Your task to perform on an android device: Open the stopwatch Image 0: 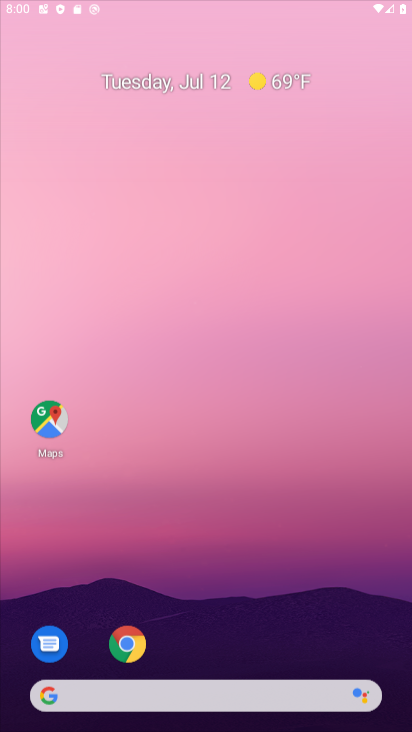
Step 0: press home button
Your task to perform on an android device: Open the stopwatch Image 1: 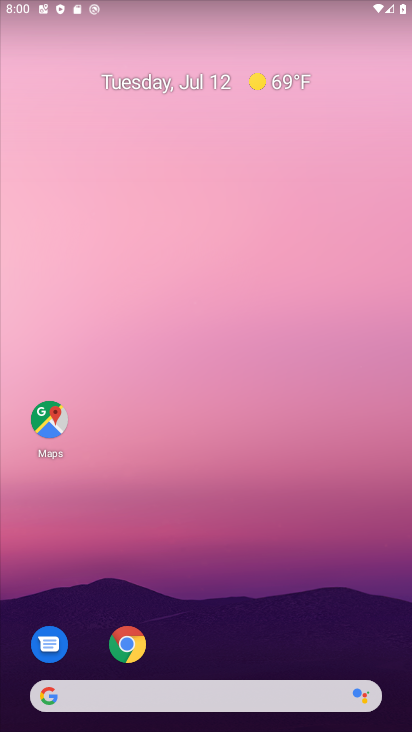
Step 1: drag from (207, 659) to (236, 25)
Your task to perform on an android device: Open the stopwatch Image 2: 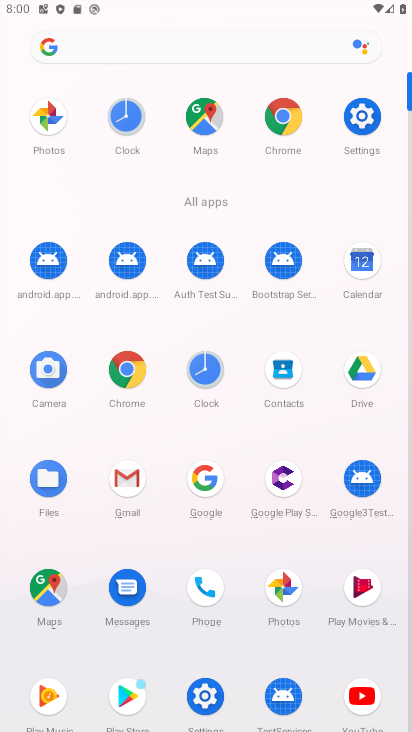
Step 2: click (202, 361)
Your task to perform on an android device: Open the stopwatch Image 3: 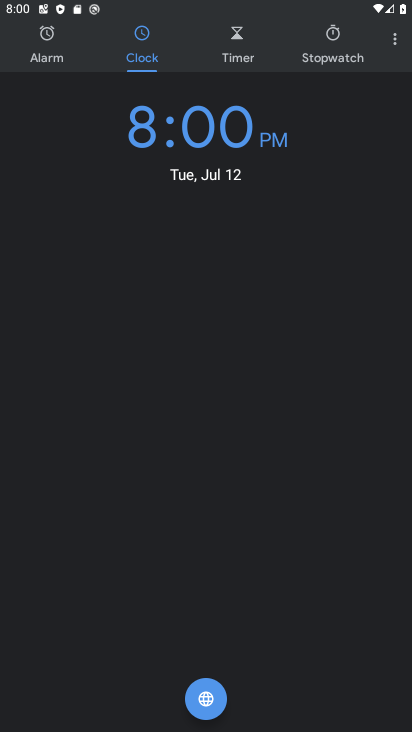
Step 3: click (335, 39)
Your task to perform on an android device: Open the stopwatch Image 4: 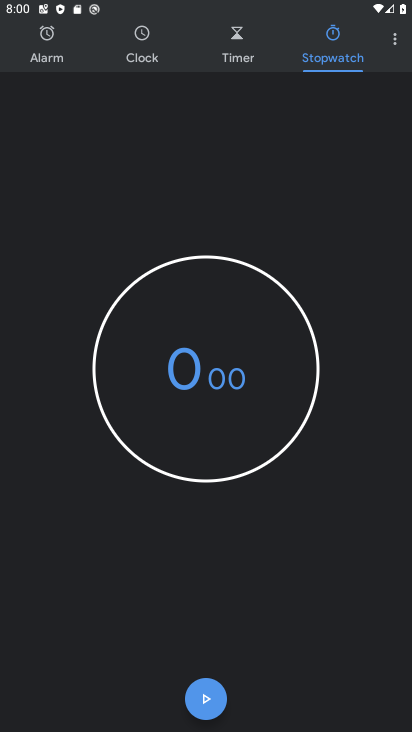
Step 4: click (208, 693)
Your task to perform on an android device: Open the stopwatch Image 5: 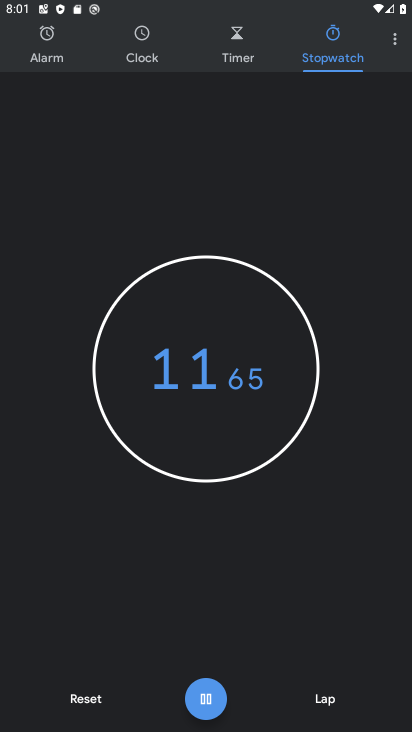
Step 5: task complete